Your task to perform on an android device: open device folders in google photos Image 0: 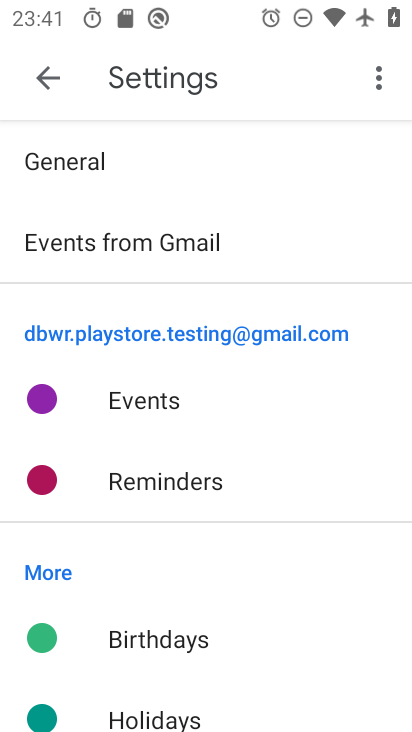
Step 0: press home button
Your task to perform on an android device: open device folders in google photos Image 1: 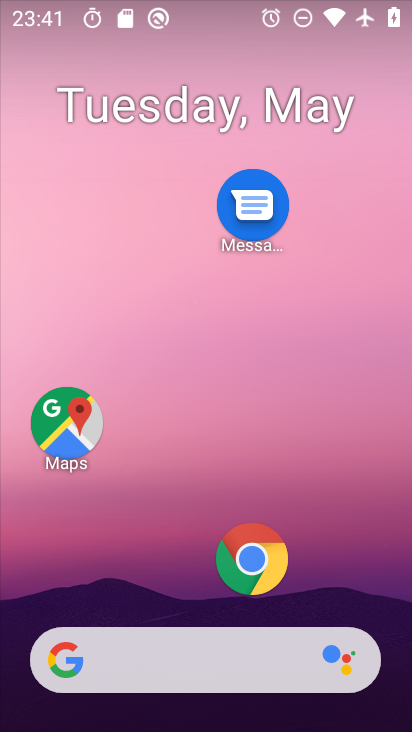
Step 1: drag from (189, 604) to (203, 185)
Your task to perform on an android device: open device folders in google photos Image 2: 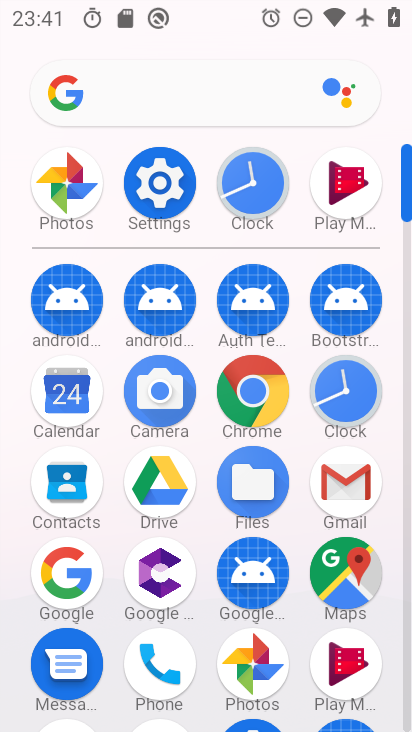
Step 2: click (81, 207)
Your task to perform on an android device: open device folders in google photos Image 3: 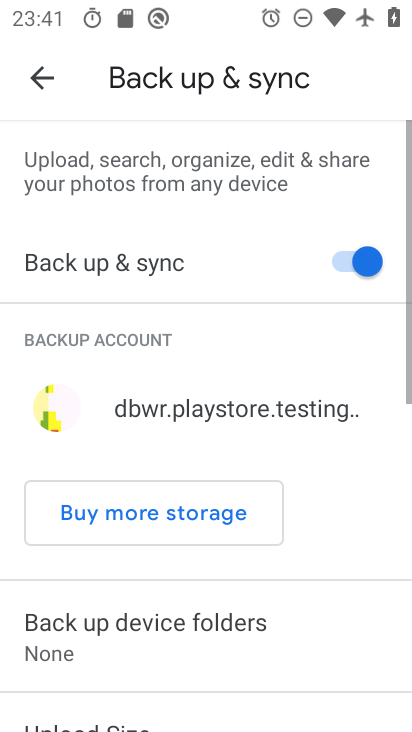
Step 3: click (56, 82)
Your task to perform on an android device: open device folders in google photos Image 4: 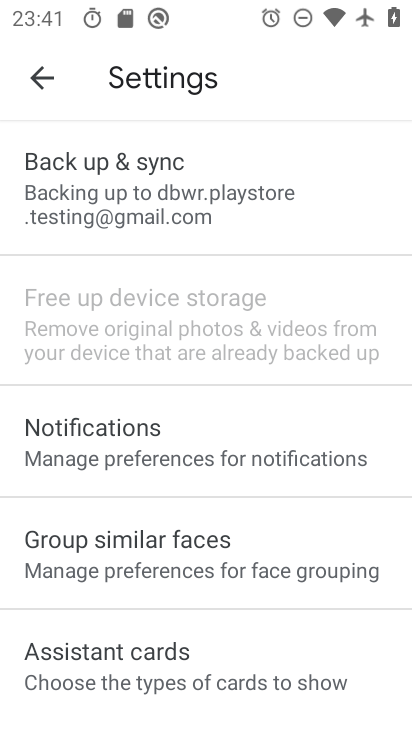
Step 4: click (56, 82)
Your task to perform on an android device: open device folders in google photos Image 5: 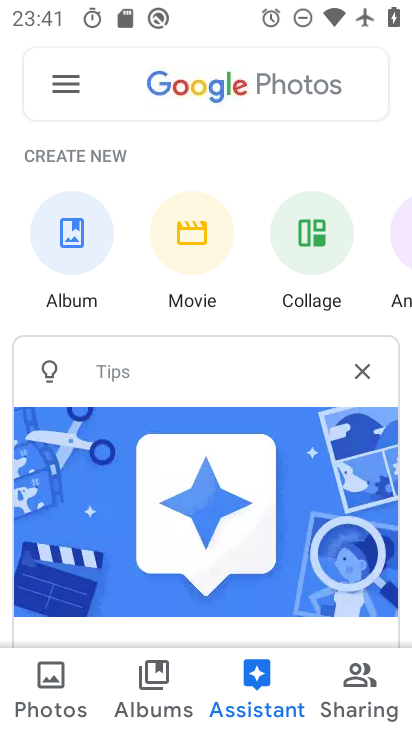
Step 5: click (52, 86)
Your task to perform on an android device: open device folders in google photos Image 6: 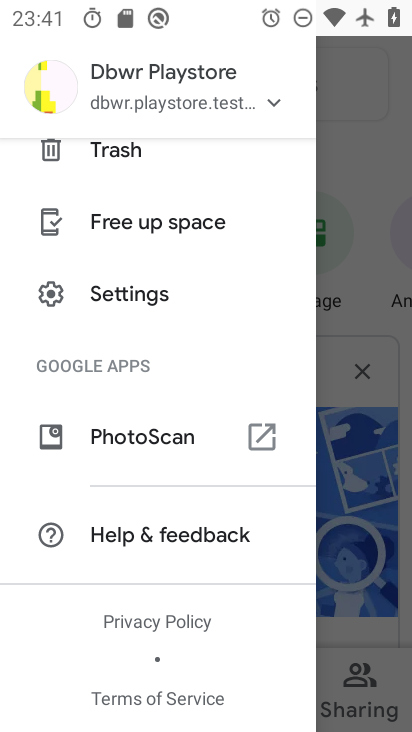
Step 6: drag from (141, 174) to (159, 620)
Your task to perform on an android device: open device folders in google photos Image 7: 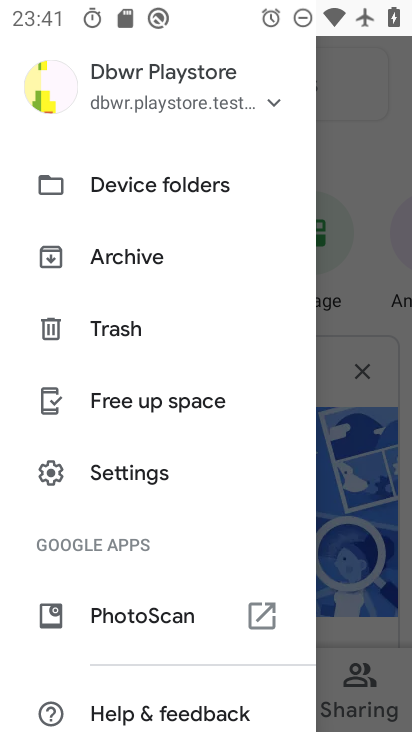
Step 7: click (116, 177)
Your task to perform on an android device: open device folders in google photos Image 8: 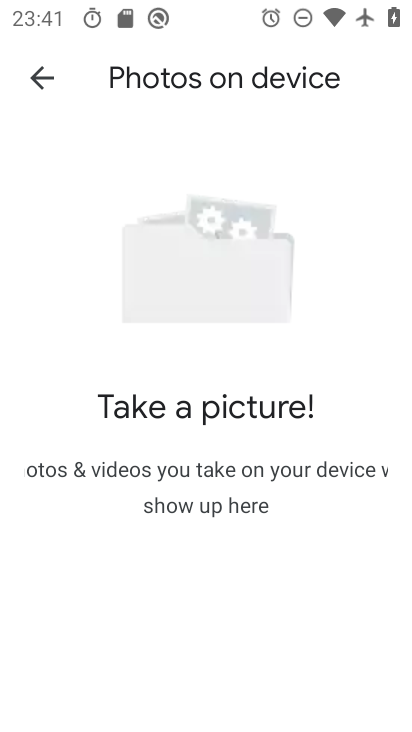
Step 8: task complete